Your task to perform on an android device: change the clock display to digital Image 0: 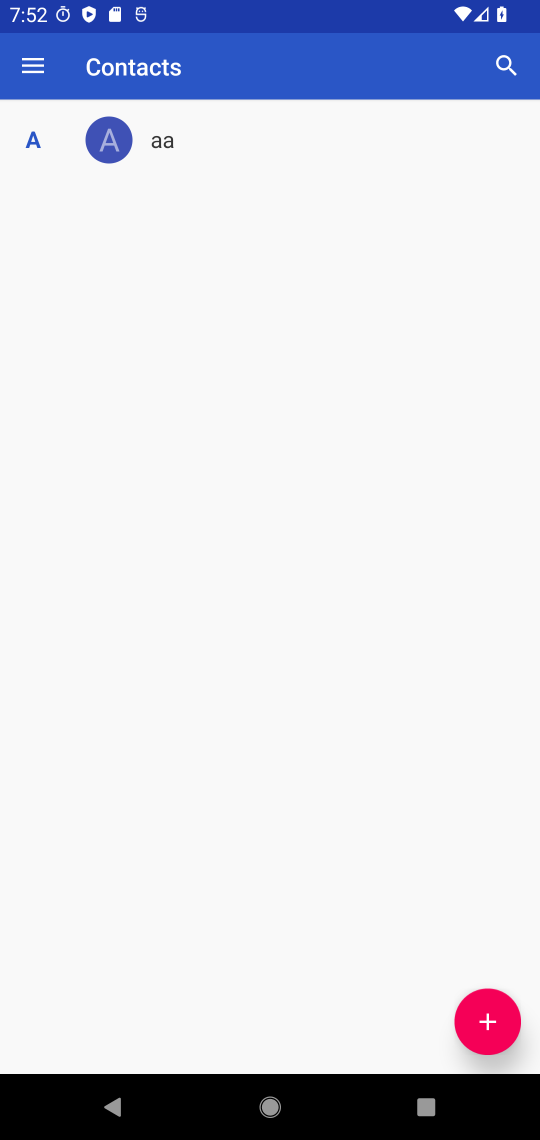
Step 0: press home button
Your task to perform on an android device: change the clock display to digital Image 1: 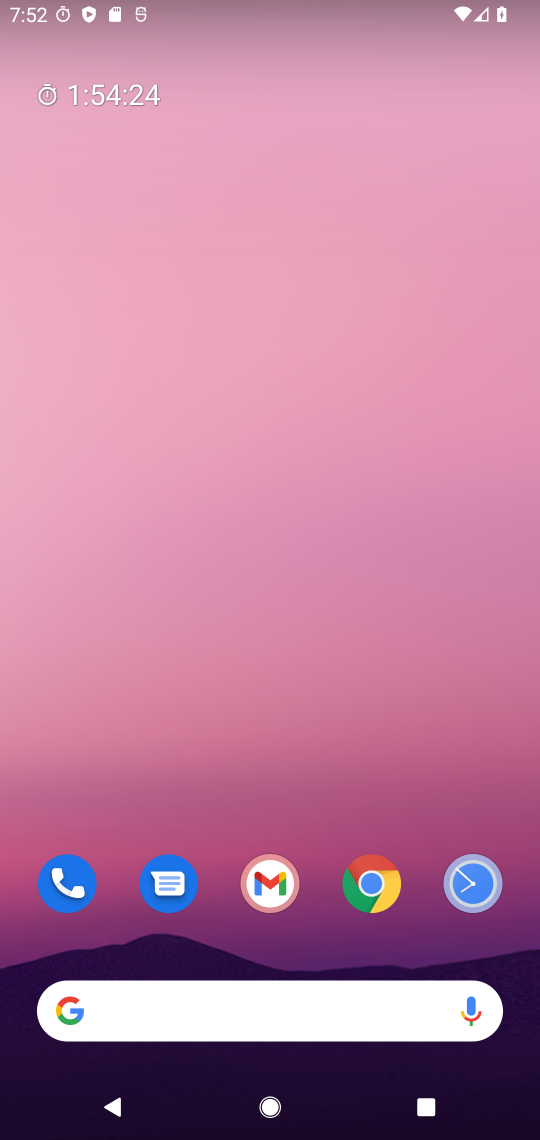
Step 1: click (481, 868)
Your task to perform on an android device: change the clock display to digital Image 2: 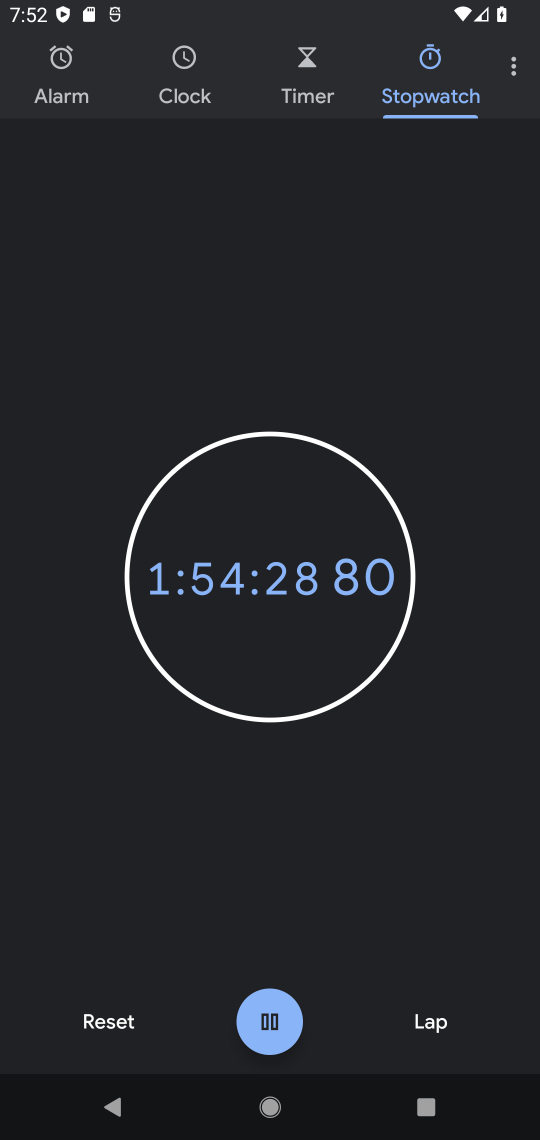
Step 2: click (501, 65)
Your task to perform on an android device: change the clock display to digital Image 3: 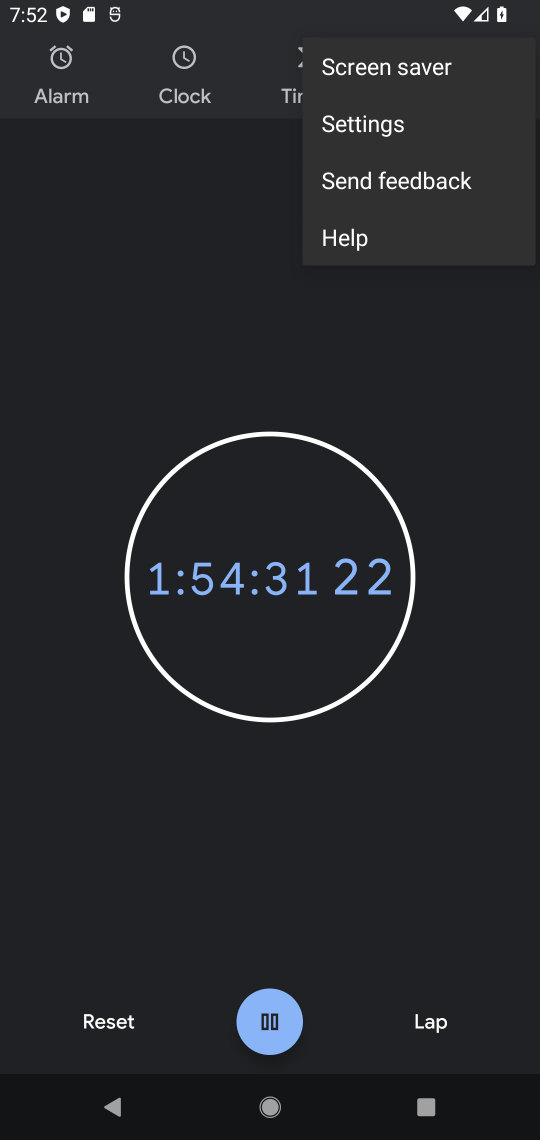
Step 3: click (390, 124)
Your task to perform on an android device: change the clock display to digital Image 4: 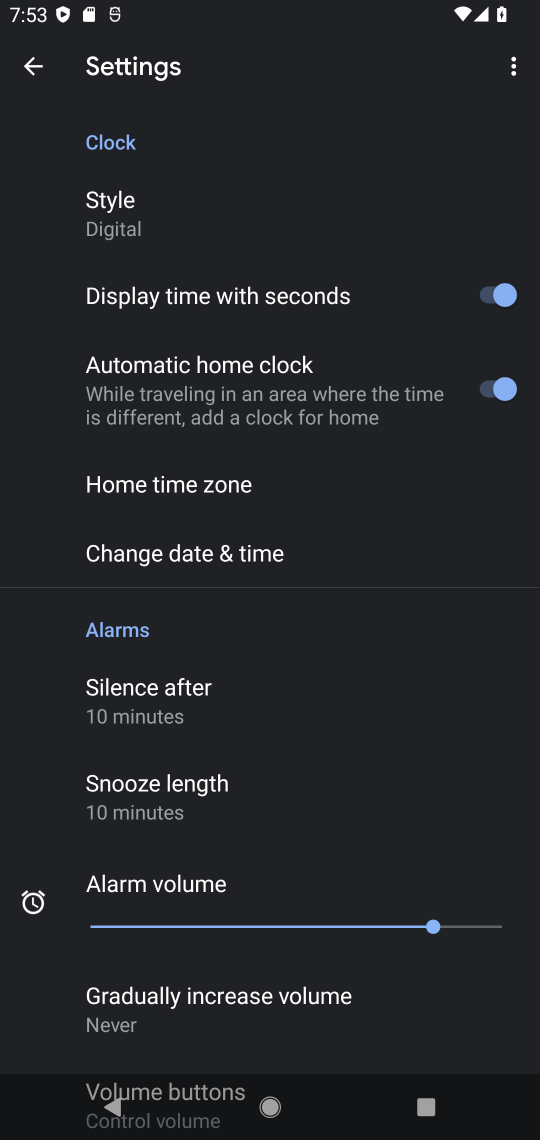
Step 4: task complete